Your task to perform on an android device: change the clock display to digital Image 0: 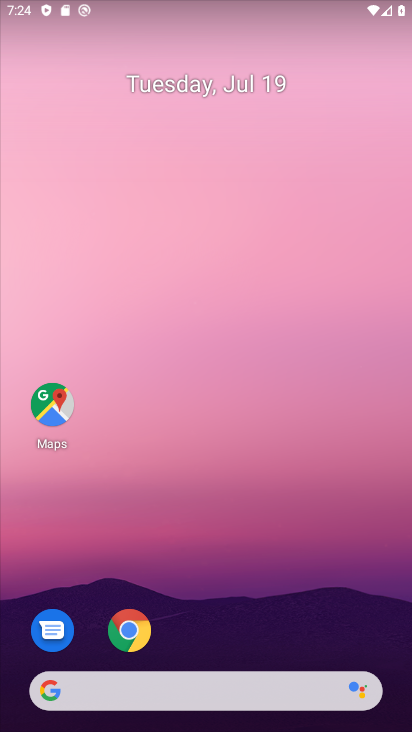
Step 0: drag from (275, 594) to (317, 233)
Your task to perform on an android device: change the clock display to digital Image 1: 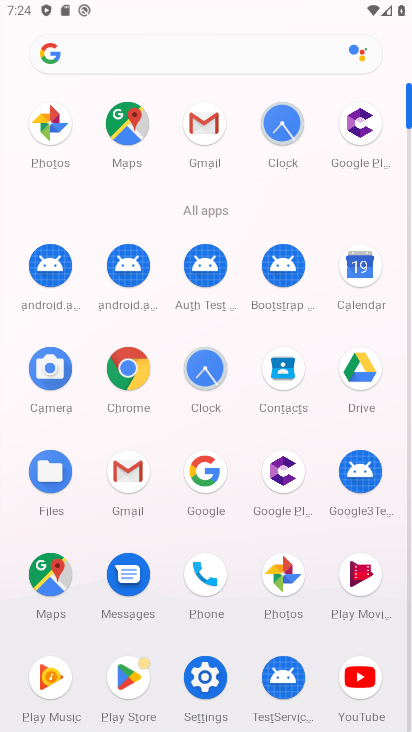
Step 1: click (191, 375)
Your task to perform on an android device: change the clock display to digital Image 2: 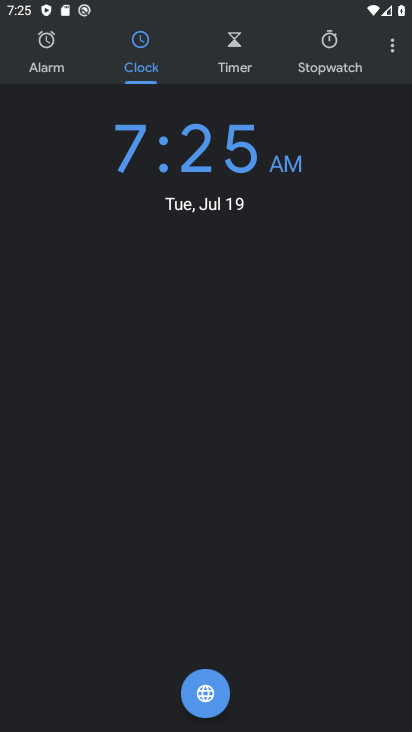
Step 2: click (390, 54)
Your task to perform on an android device: change the clock display to digital Image 3: 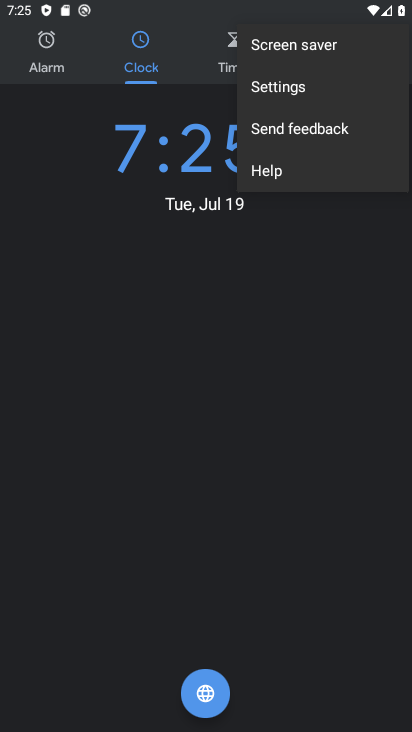
Step 3: click (264, 87)
Your task to perform on an android device: change the clock display to digital Image 4: 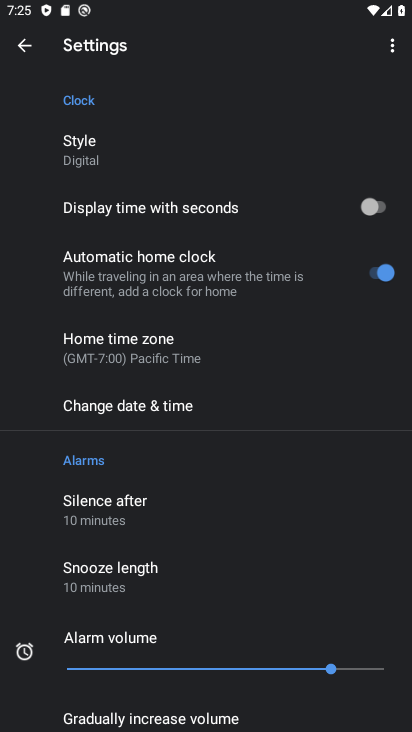
Step 4: task complete